Your task to perform on an android device: toggle sleep mode Image 0: 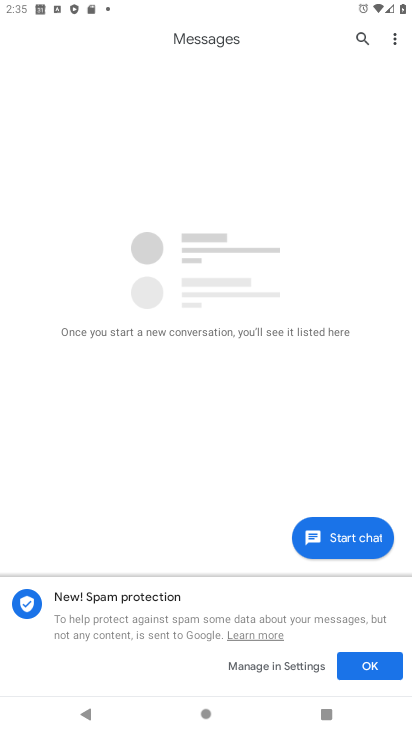
Step 0: press home button
Your task to perform on an android device: toggle sleep mode Image 1: 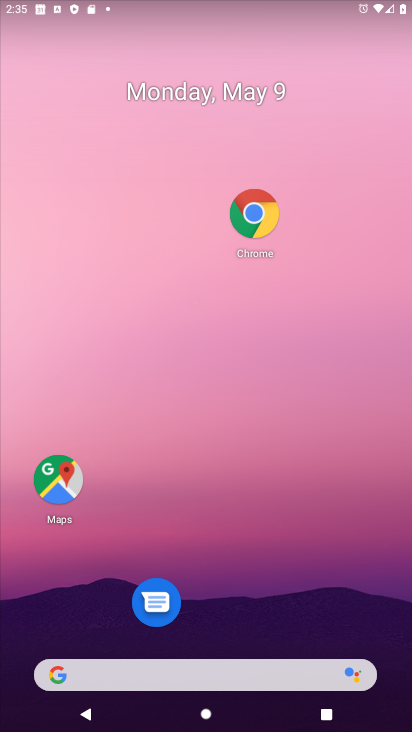
Step 1: drag from (268, 535) to (245, 75)
Your task to perform on an android device: toggle sleep mode Image 2: 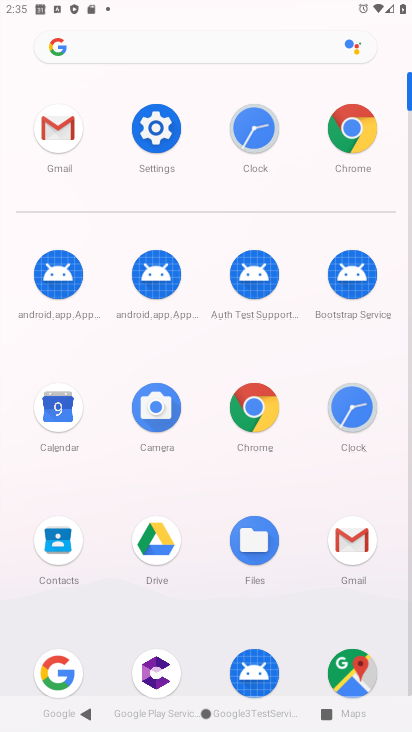
Step 2: click (157, 137)
Your task to perform on an android device: toggle sleep mode Image 3: 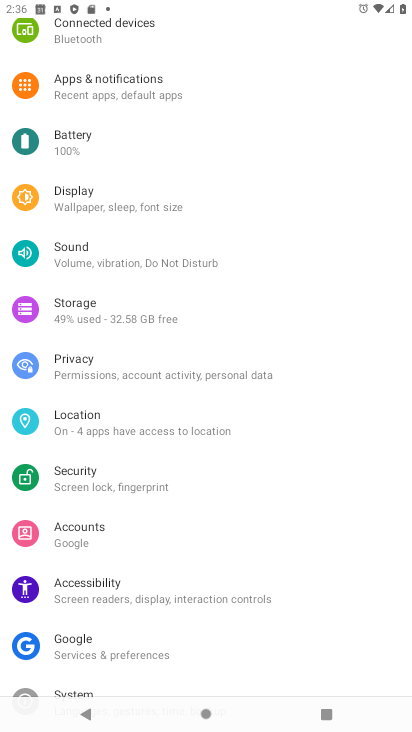
Step 3: click (187, 201)
Your task to perform on an android device: toggle sleep mode Image 4: 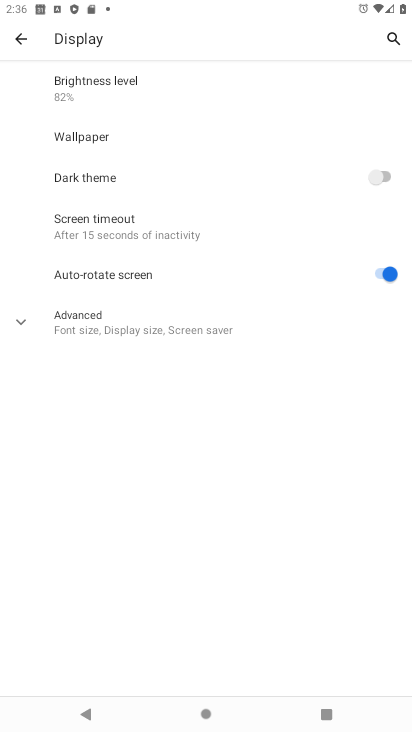
Step 4: click (177, 233)
Your task to perform on an android device: toggle sleep mode Image 5: 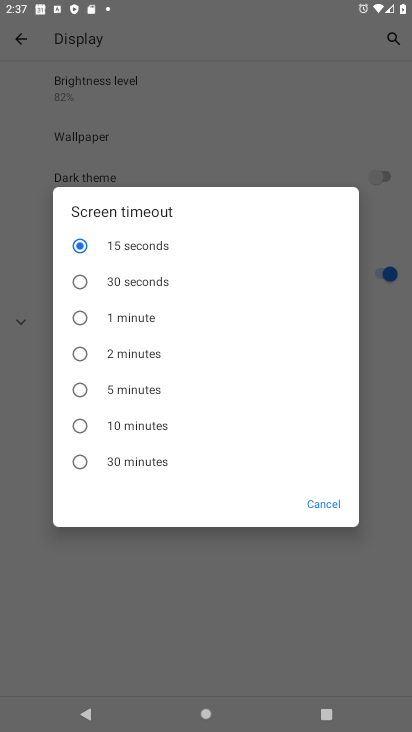
Step 5: click (154, 285)
Your task to perform on an android device: toggle sleep mode Image 6: 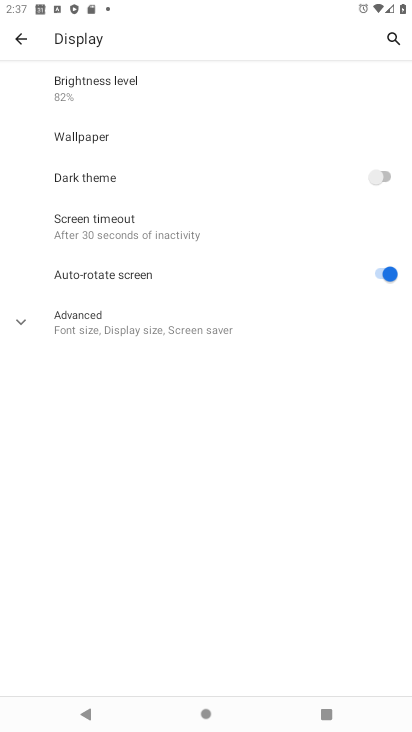
Step 6: task complete